Your task to perform on an android device: turn on location history Image 0: 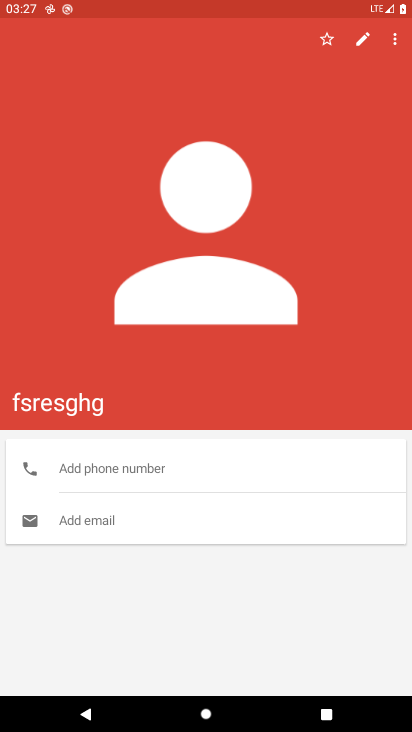
Step 0: press home button
Your task to perform on an android device: turn on location history Image 1: 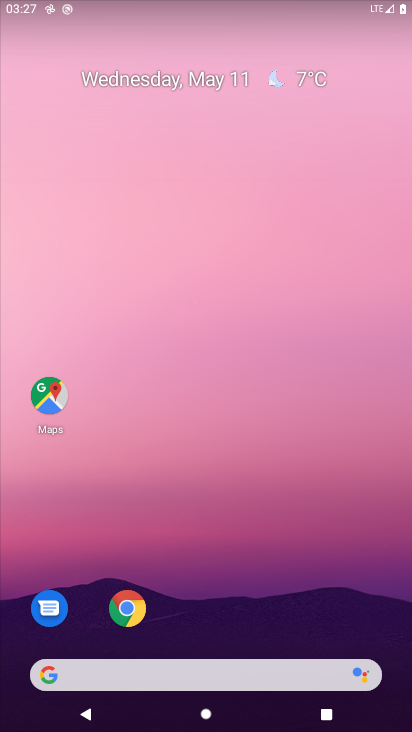
Step 1: drag from (227, 630) to (272, 42)
Your task to perform on an android device: turn on location history Image 2: 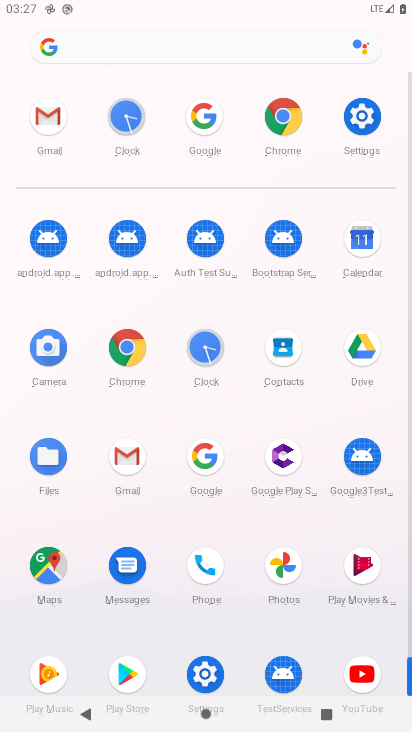
Step 2: click (370, 103)
Your task to perform on an android device: turn on location history Image 3: 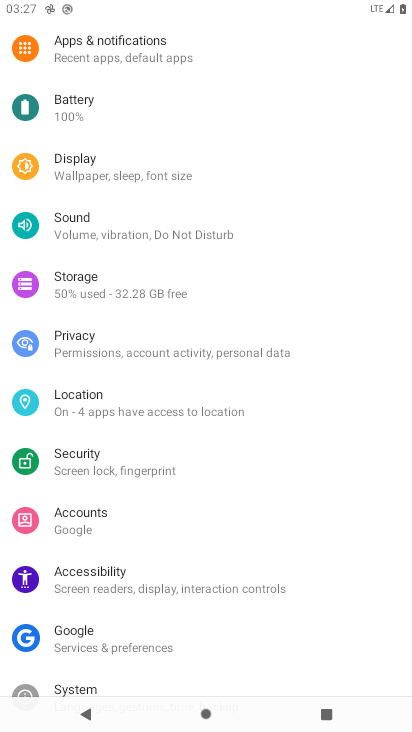
Step 3: click (135, 394)
Your task to perform on an android device: turn on location history Image 4: 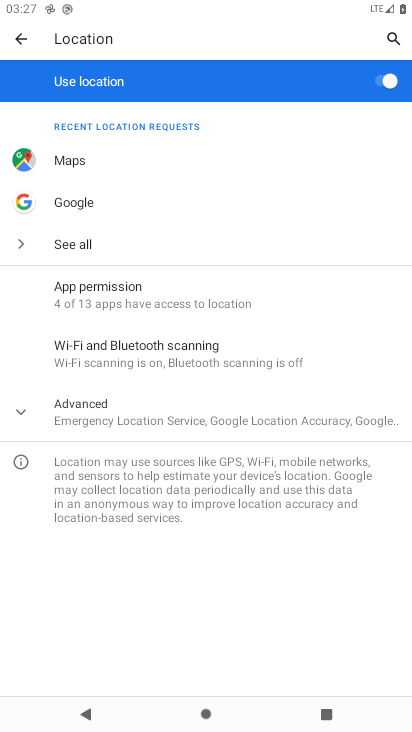
Step 4: click (60, 416)
Your task to perform on an android device: turn on location history Image 5: 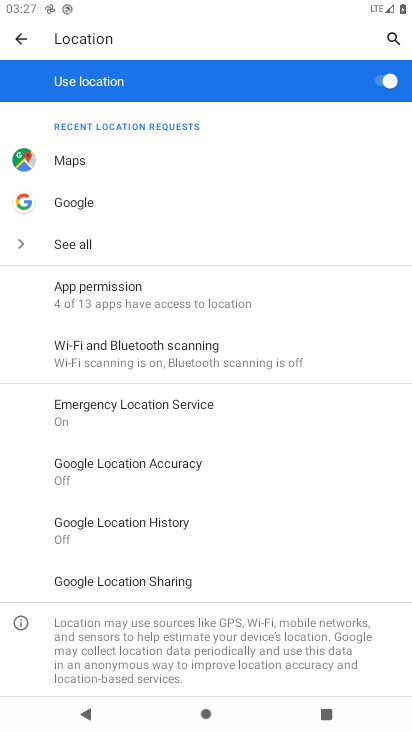
Step 5: click (122, 525)
Your task to perform on an android device: turn on location history Image 6: 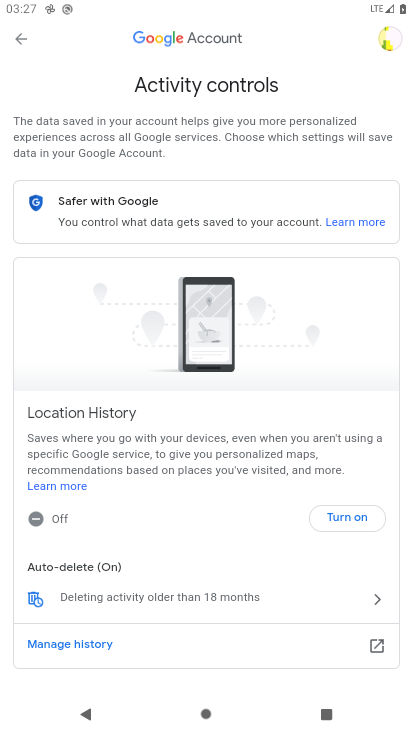
Step 6: click (349, 512)
Your task to perform on an android device: turn on location history Image 7: 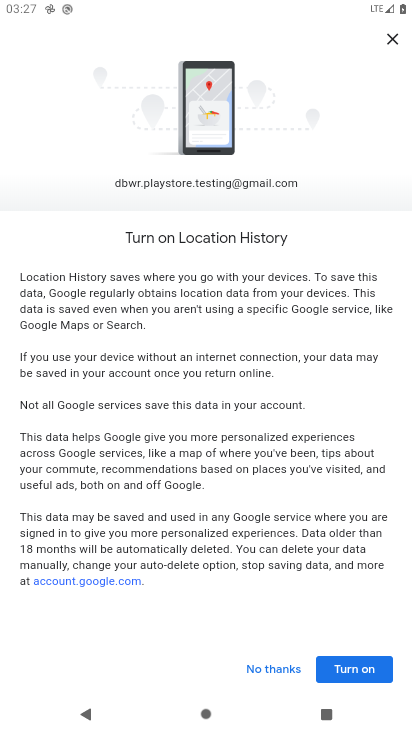
Step 7: click (350, 666)
Your task to perform on an android device: turn on location history Image 8: 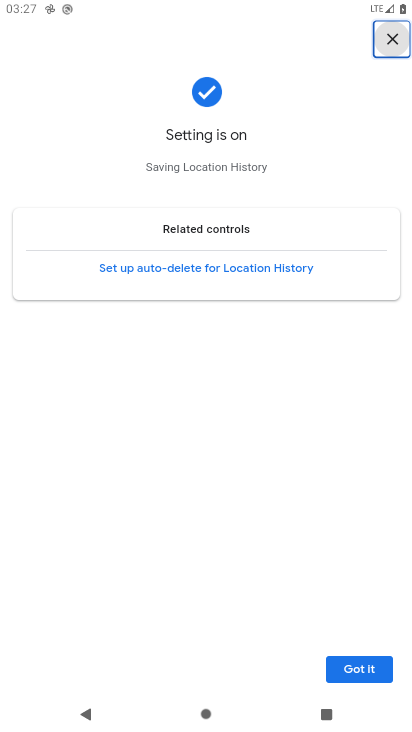
Step 8: click (358, 670)
Your task to perform on an android device: turn on location history Image 9: 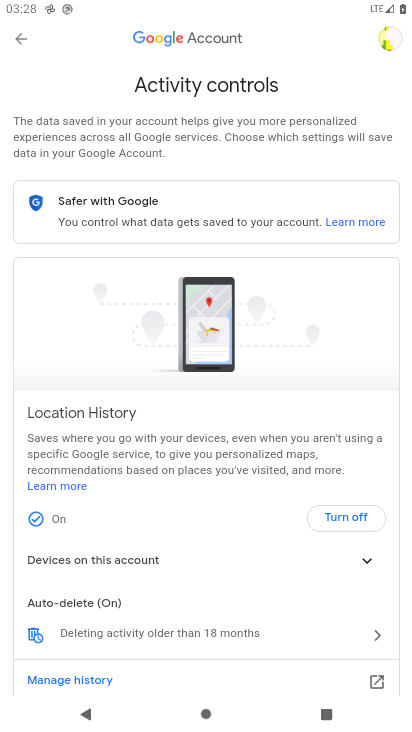
Step 9: task complete